Your task to perform on an android device: read, delete, or share a saved page in the chrome app Image 0: 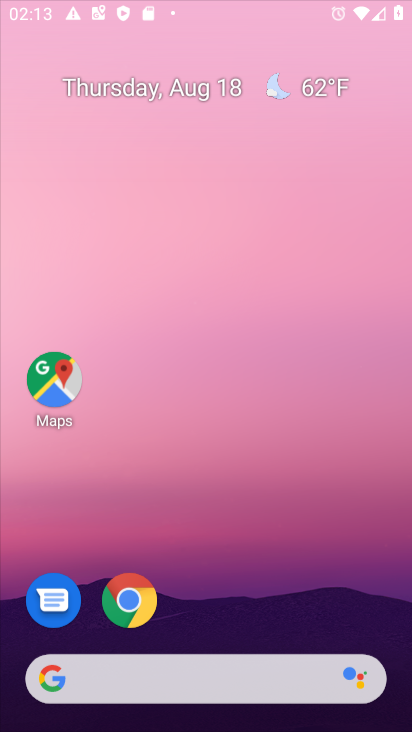
Step 0: press home button
Your task to perform on an android device: read, delete, or share a saved page in the chrome app Image 1: 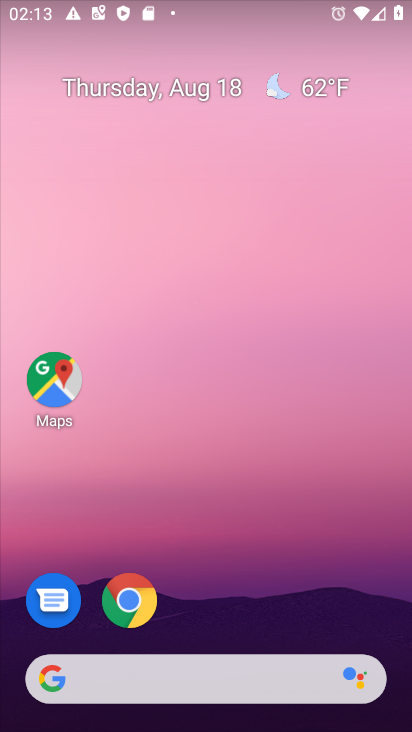
Step 1: drag from (232, 592) to (304, 0)
Your task to perform on an android device: read, delete, or share a saved page in the chrome app Image 2: 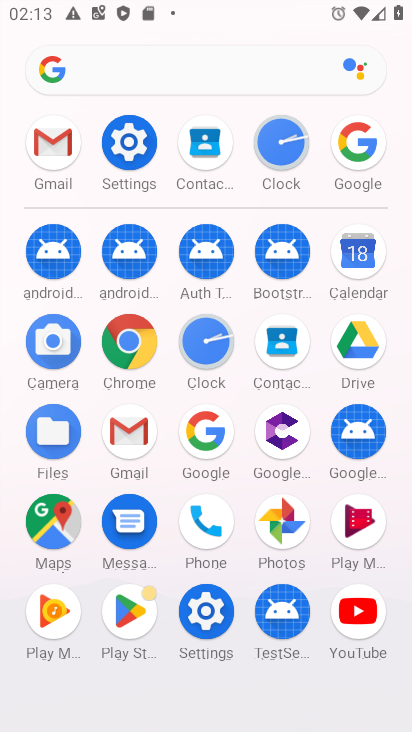
Step 2: click (134, 350)
Your task to perform on an android device: read, delete, or share a saved page in the chrome app Image 3: 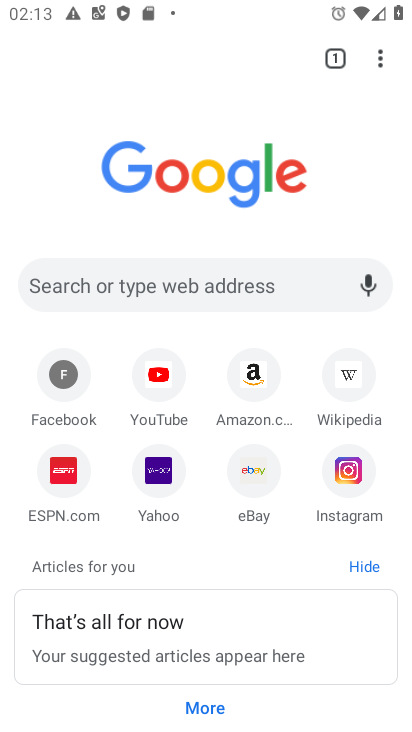
Step 3: task complete